Your task to perform on an android device: install app "Expedia: Hotels, Flights & Car" Image 0: 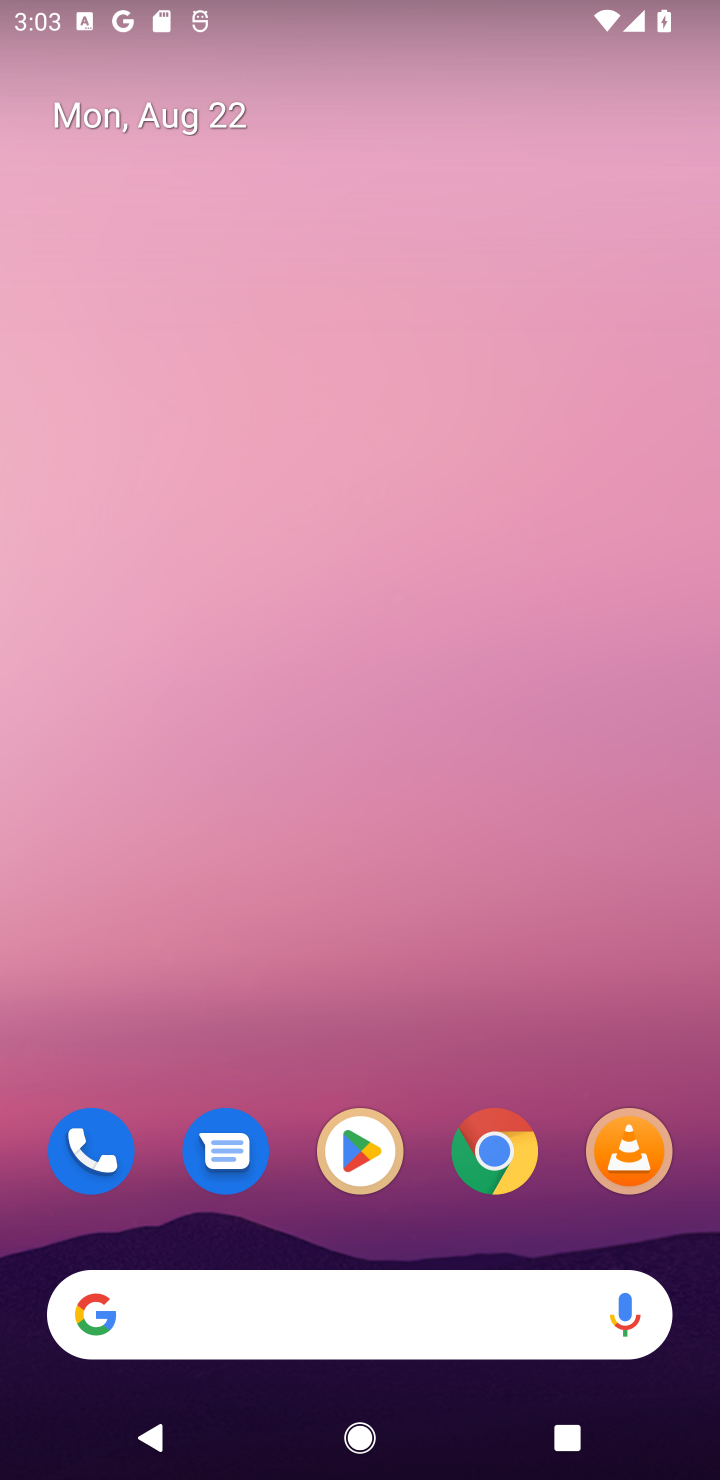
Step 0: press home button
Your task to perform on an android device: install app "Expedia: Hotels, Flights & Car" Image 1: 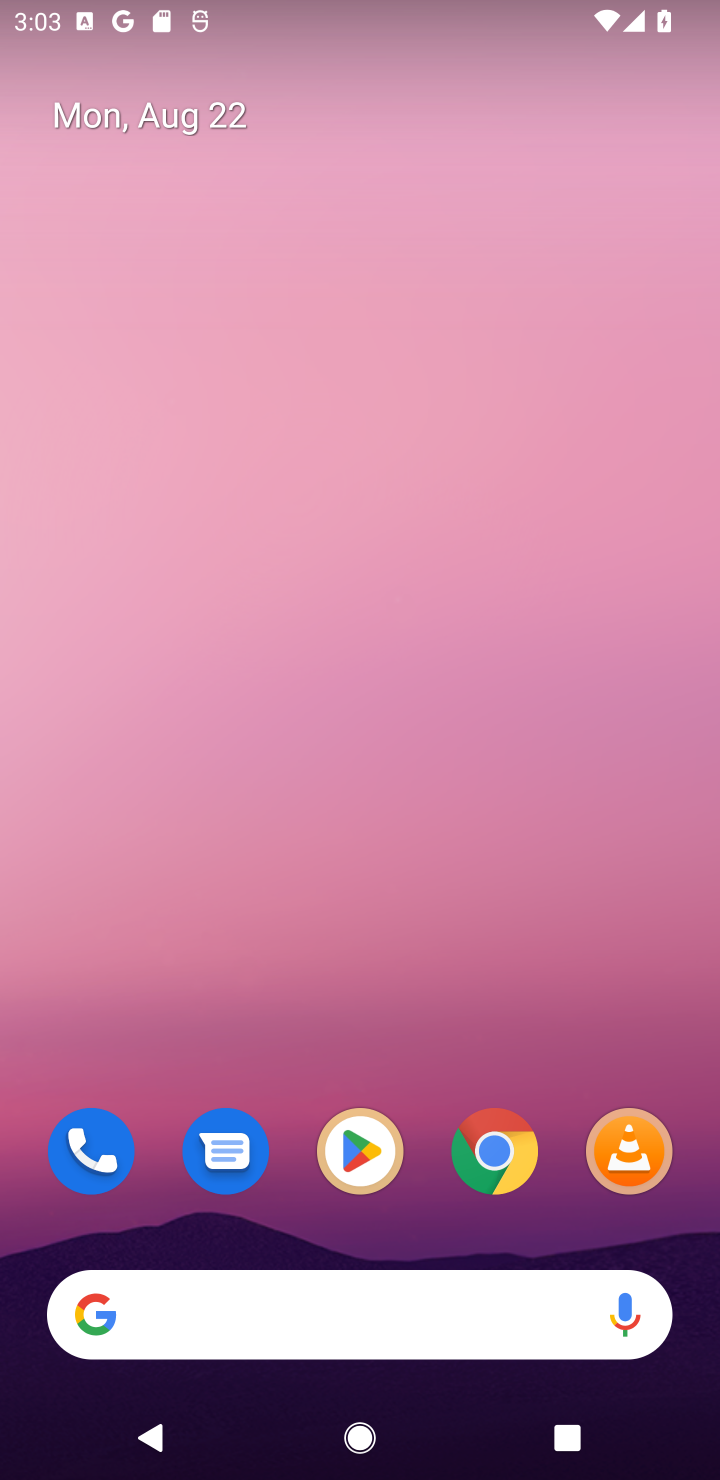
Step 1: click (361, 1147)
Your task to perform on an android device: install app "Expedia: Hotels, Flights & Car" Image 2: 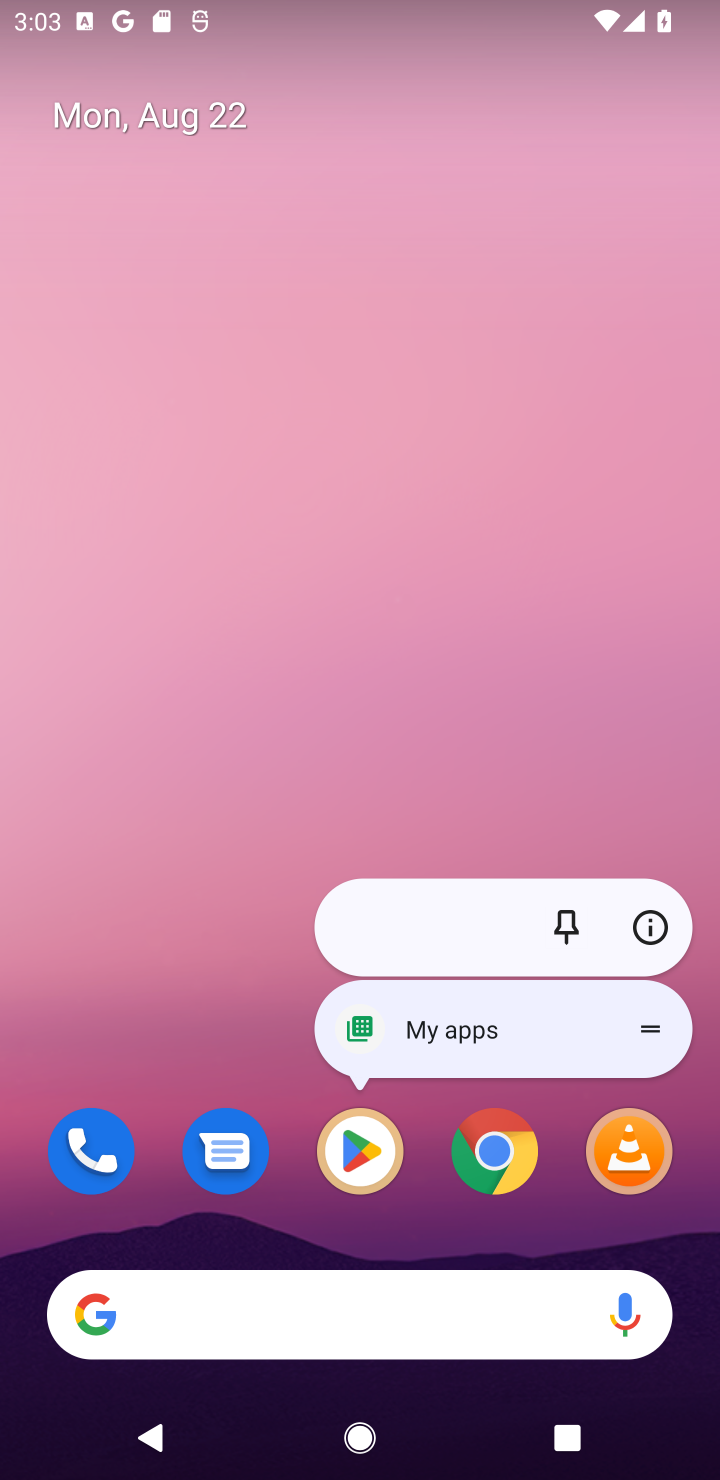
Step 2: click (361, 1149)
Your task to perform on an android device: install app "Expedia: Hotels, Flights & Car" Image 3: 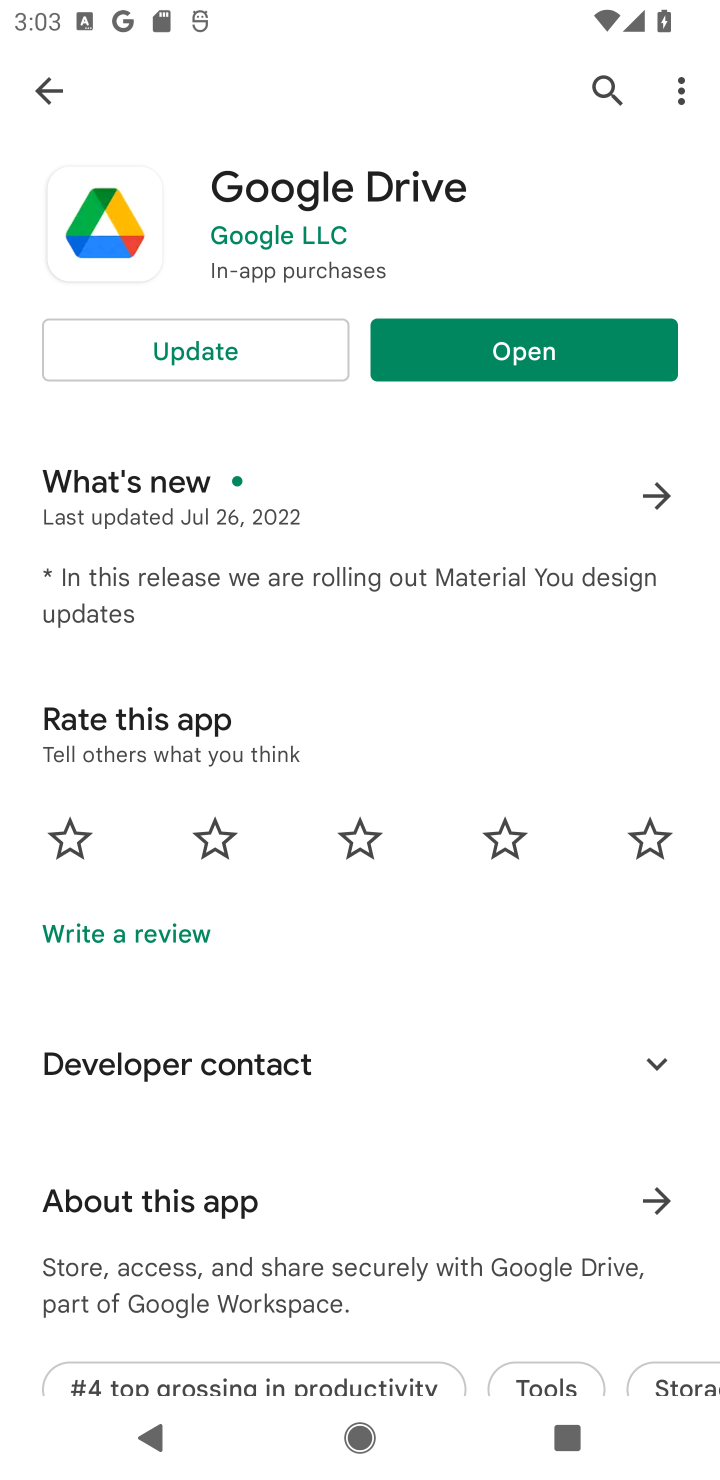
Step 3: click (599, 78)
Your task to perform on an android device: install app "Expedia: Hotels, Flights & Car" Image 4: 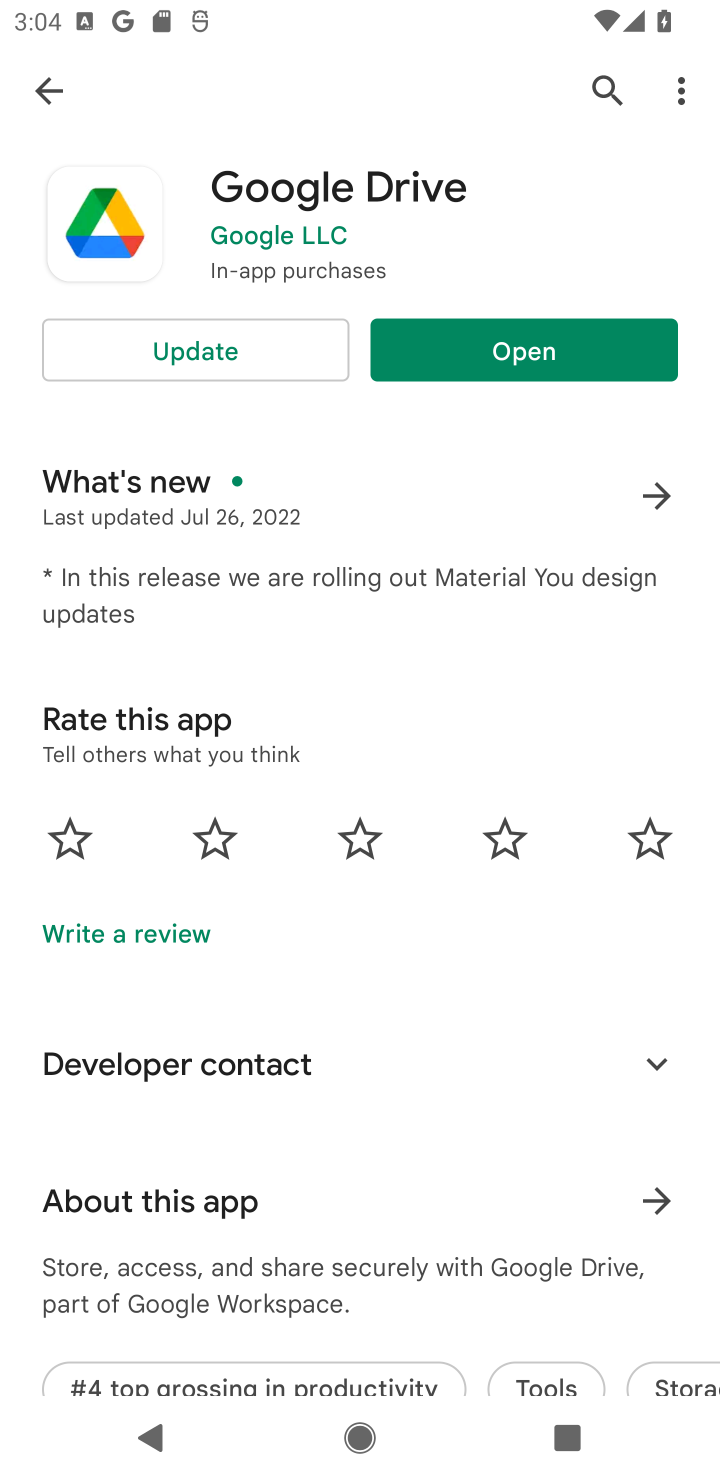
Step 4: click (603, 91)
Your task to perform on an android device: install app "Expedia: Hotels, Flights & Car" Image 5: 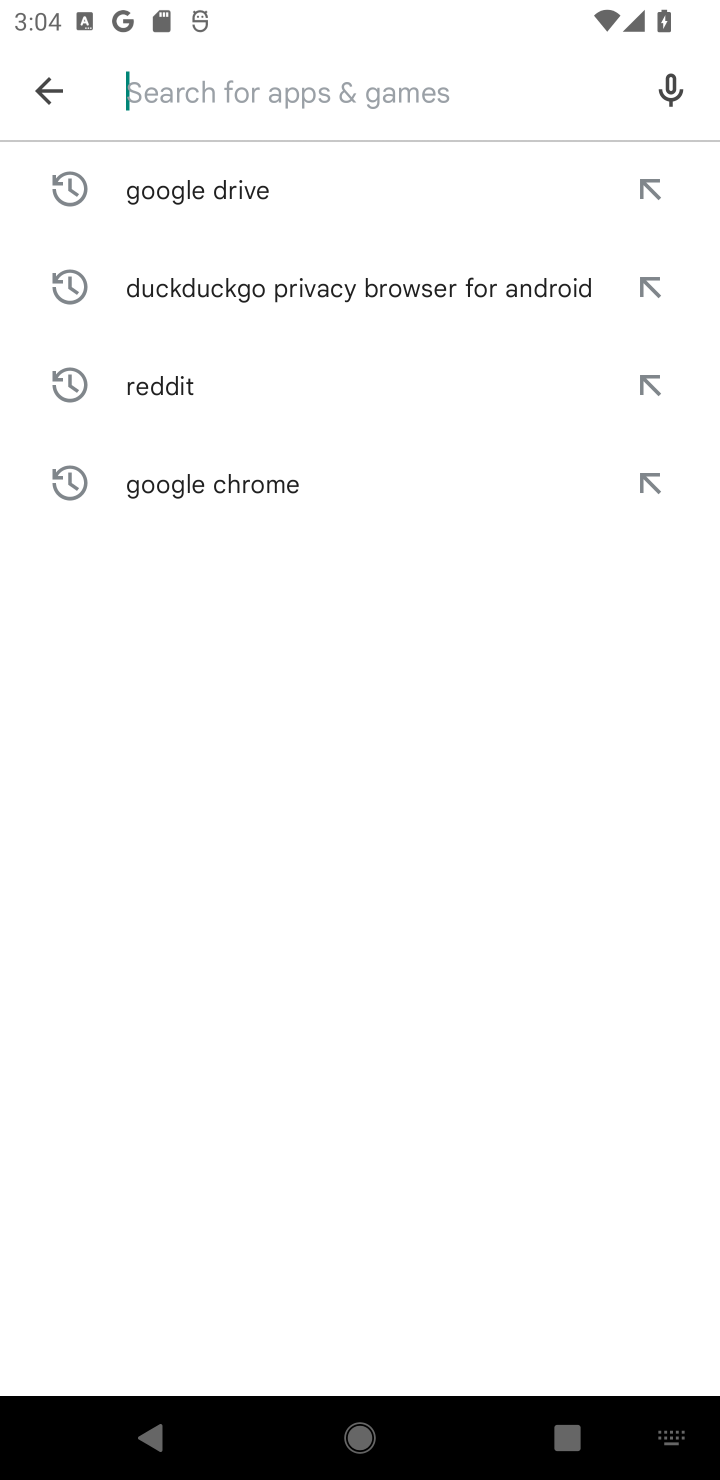
Step 5: type "Expedia: Hotels, Flights & Car"
Your task to perform on an android device: install app "Expedia: Hotels, Flights & Car" Image 6: 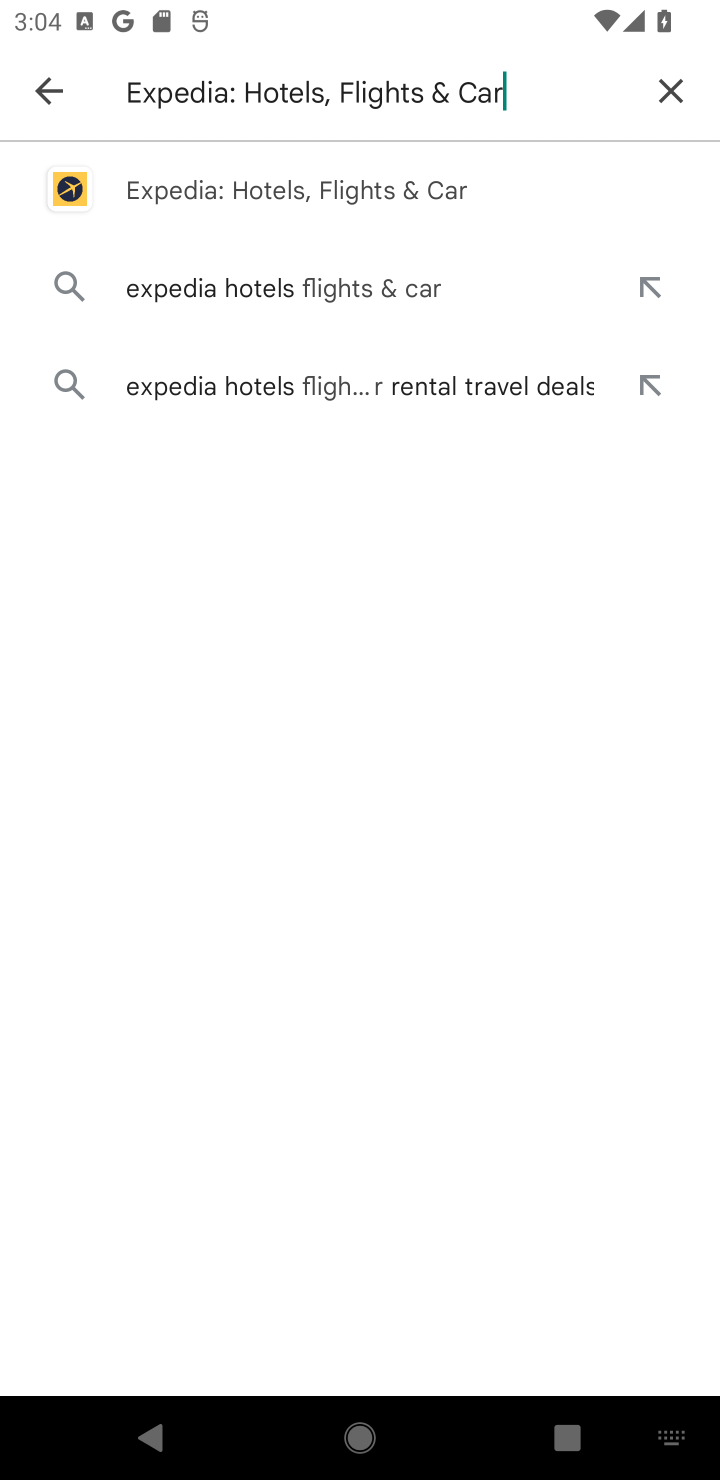
Step 6: click (385, 193)
Your task to perform on an android device: install app "Expedia: Hotels, Flights & Car" Image 7: 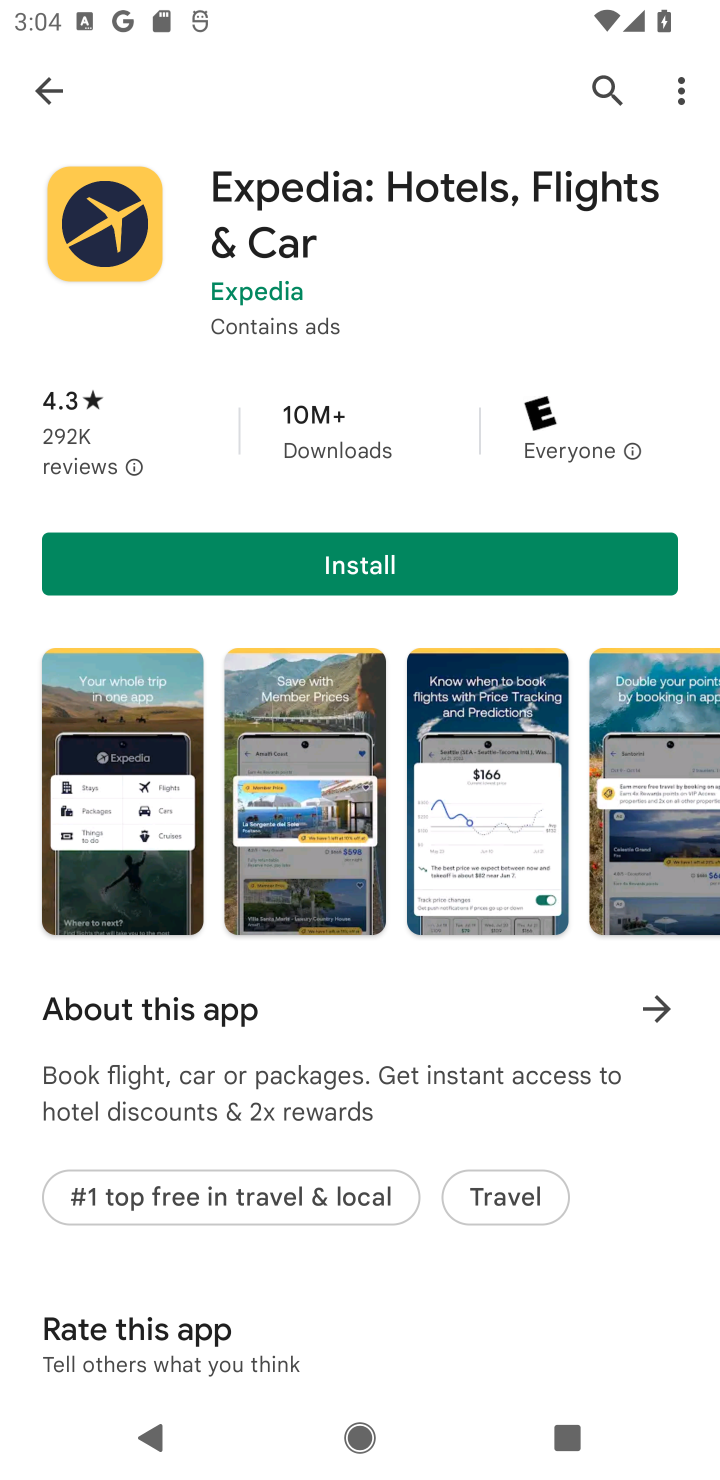
Step 7: click (368, 563)
Your task to perform on an android device: install app "Expedia: Hotels, Flights & Car" Image 8: 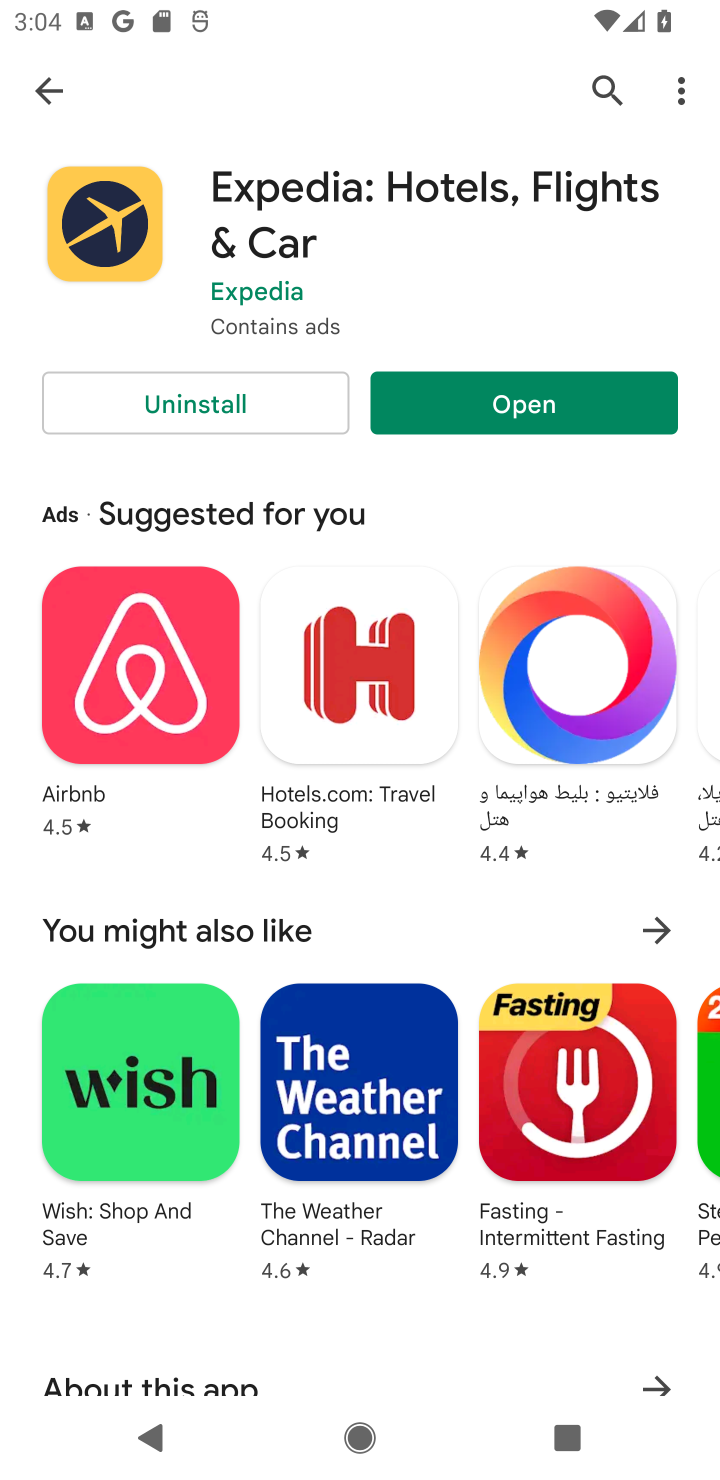
Step 8: task complete